Your task to perform on an android device: change the clock display to digital Image 0: 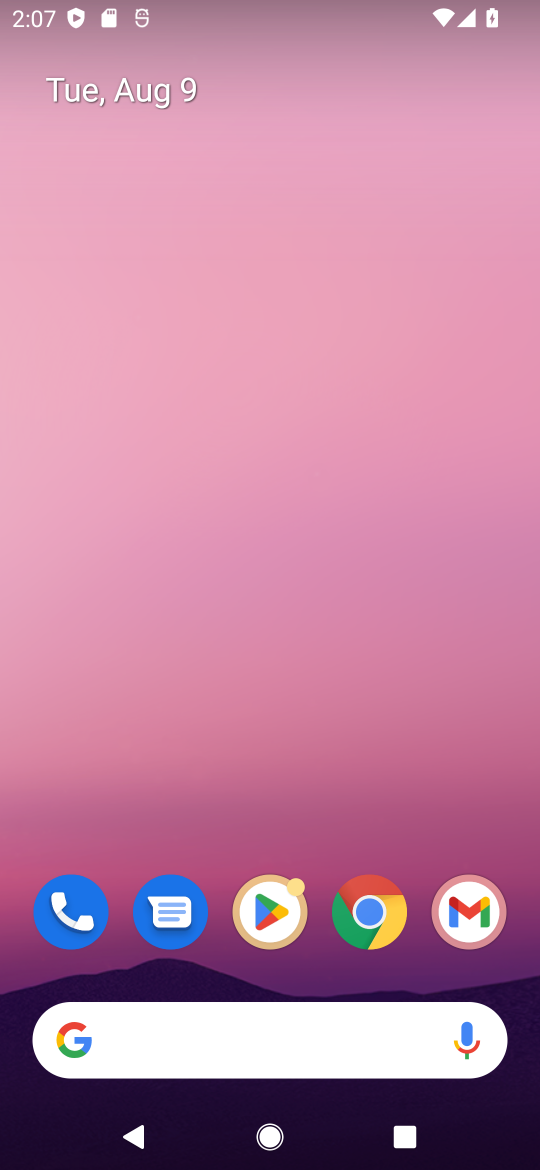
Step 0: drag from (313, 797) to (178, 190)
Your task to perform on an android device: change the clock display to digital Image 1: 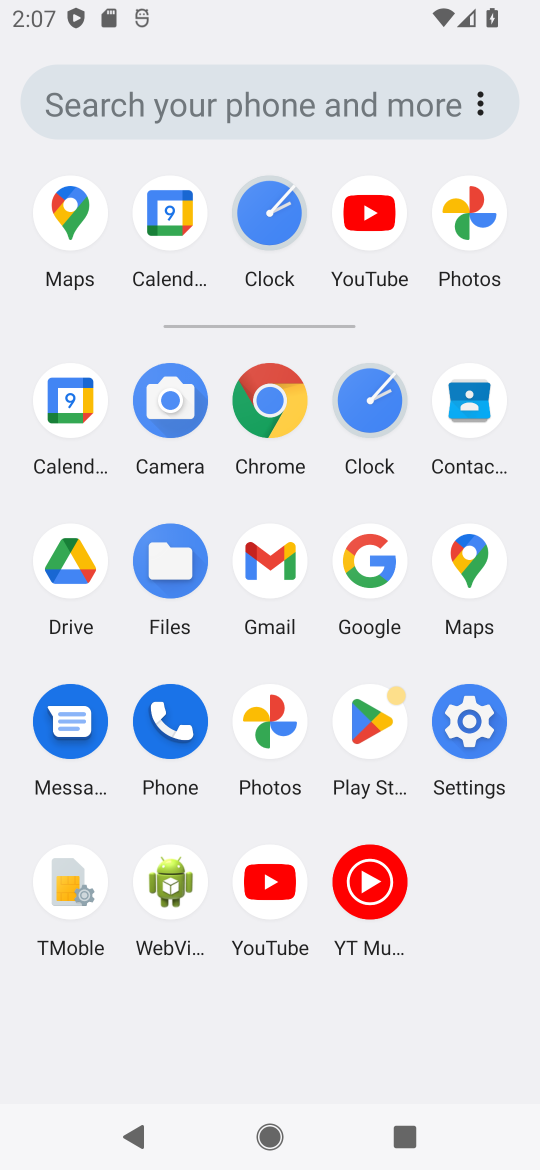
Step 1: click (385, 403)
Your task to perform on an android device: change the clock display to digital Image 2: 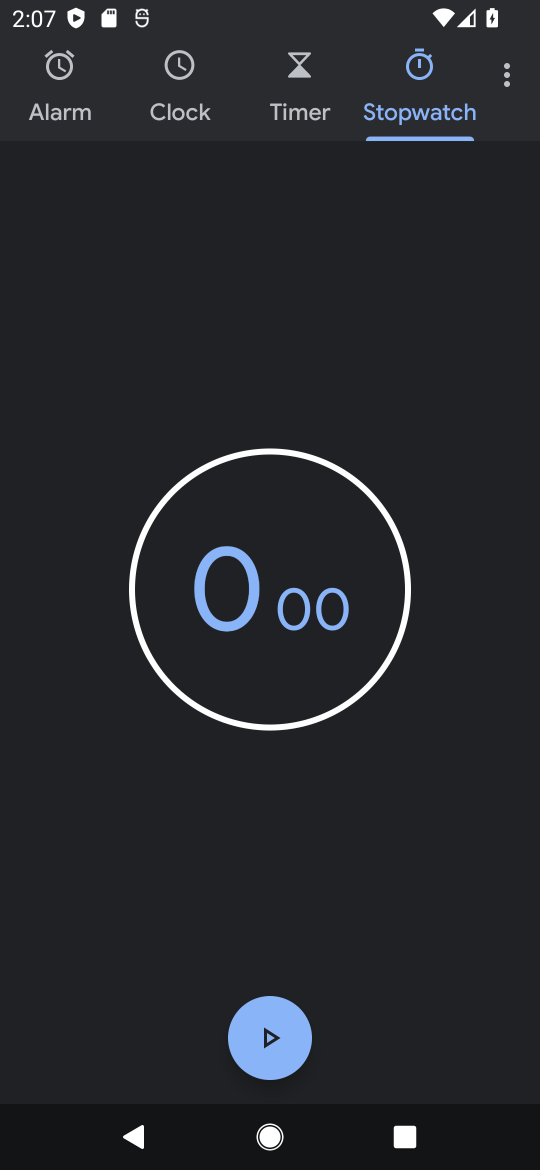
Step 2: click (501, 62)
Your task to perform on an android device: change the clock display to digital Image 3: 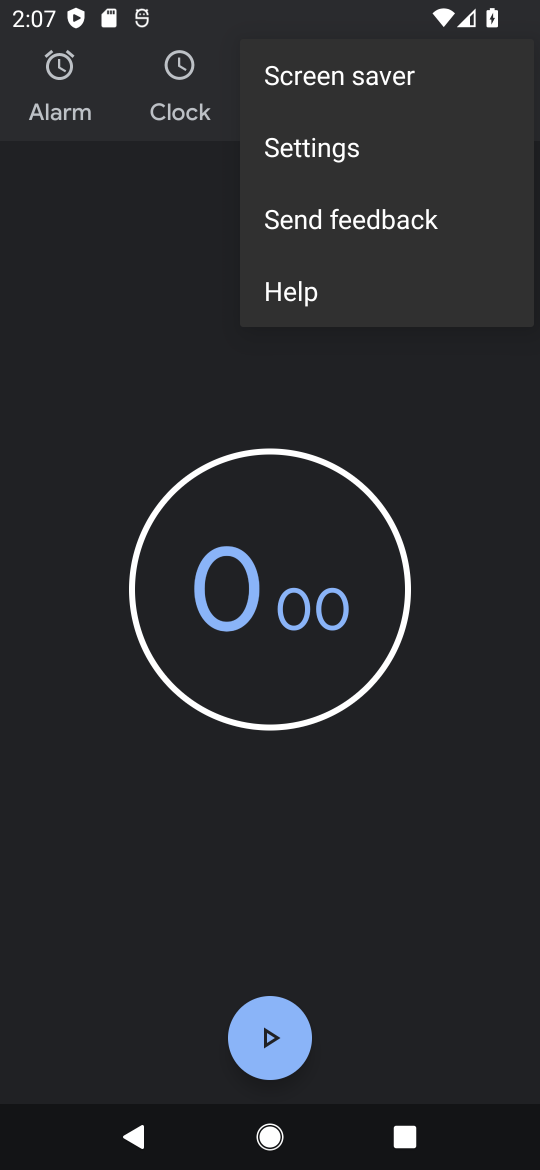
Step 3: click (326, 152)
Your task to perform on an android device: change the clock display to digital Image 4: 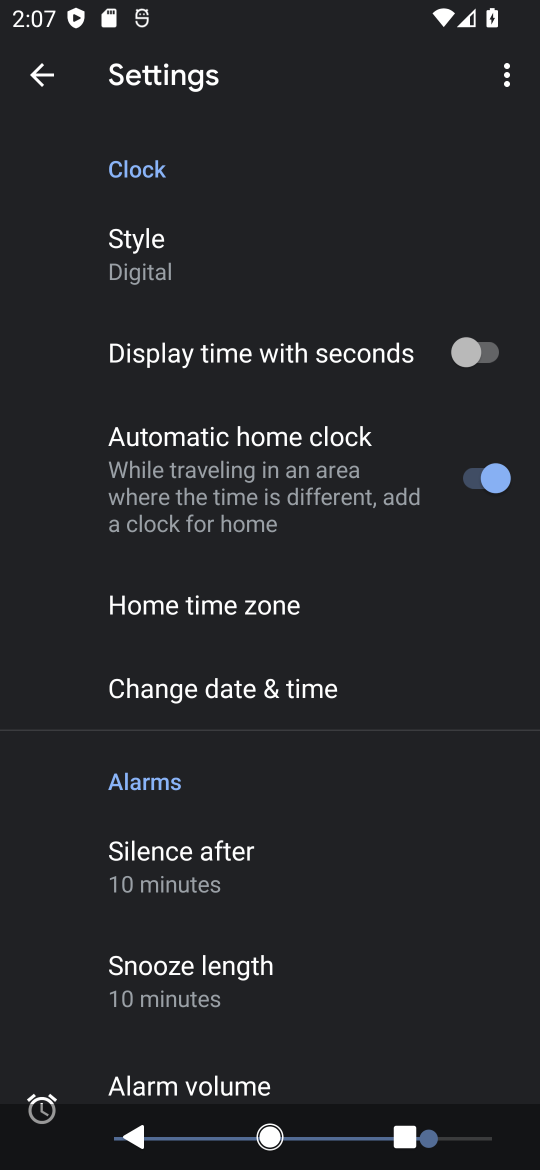
Step 4: click (148, 242)
Your task to perform on an android device: change the clock display to digital Image 5: 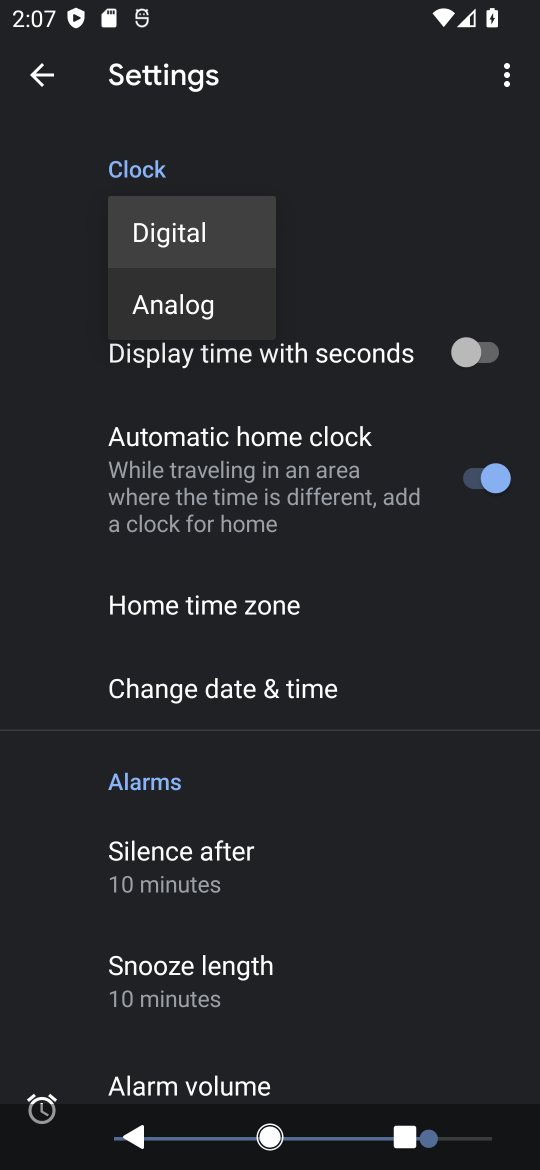
Step 5: click (170, 242)
Your task to perform on an android device: change the clock display to digital Image 6: 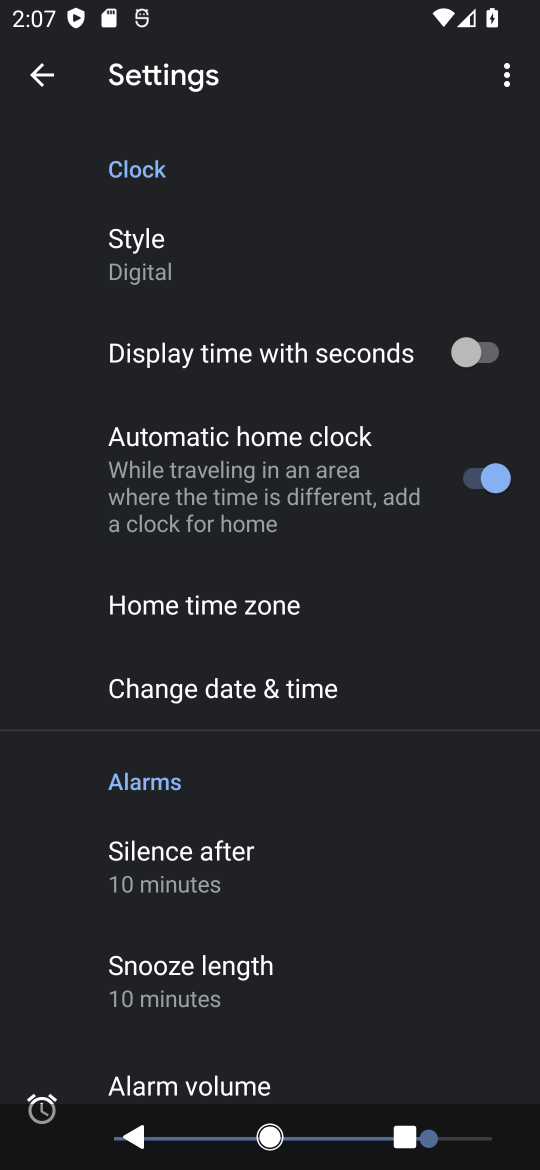
Step 6: task complete